Your task to perform on an android device: turn on javascript in the chrome app Image 0: 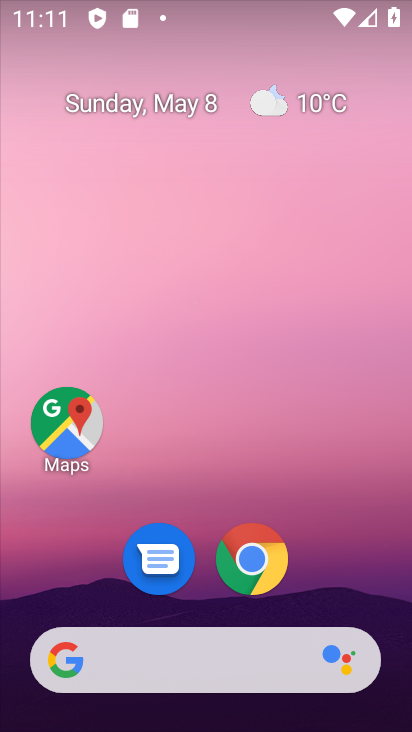
Step 0: click (250, 583)
Your task to perform on an android device: turn on javascript in the chrome app Image 1: 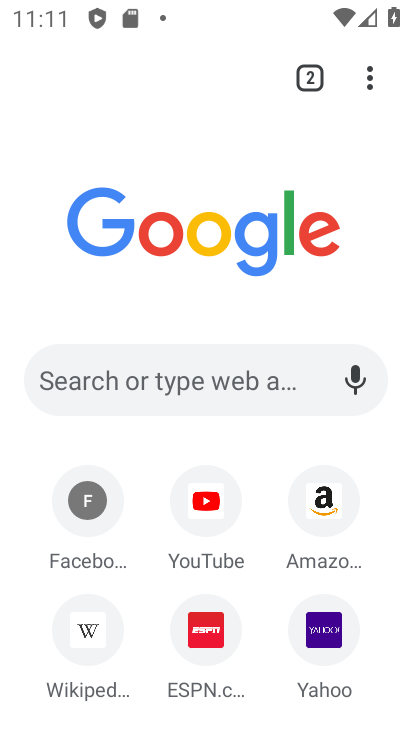
Step 1: click (367, 78)
Your task to perform on an android device: turn on javascript in the chrome app Image 2: 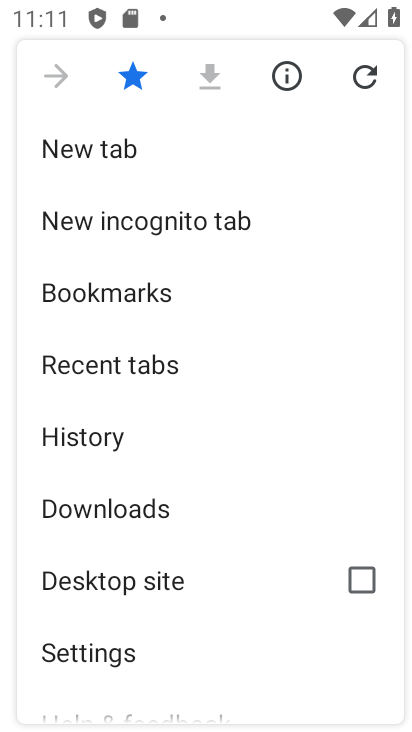
Step 2: click (111, 652)
Your task to perform on an android device: turn on javascript in the chrome app Image 3: 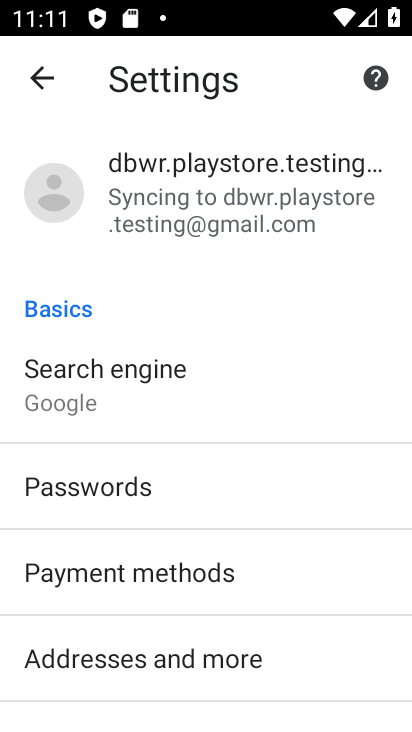
Step 3: drag from (180, 532) to (257, 280)
Your task to perform on an android device: turn on javascript in the chrome app Image 4: 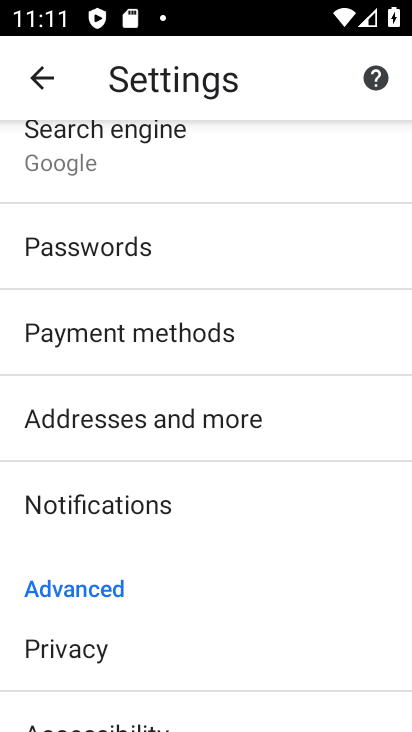
Step 4: drag from (142, 575) to (182, 116)
Your task to perform on an android device: turn on javascript in the chrome app Image 5: 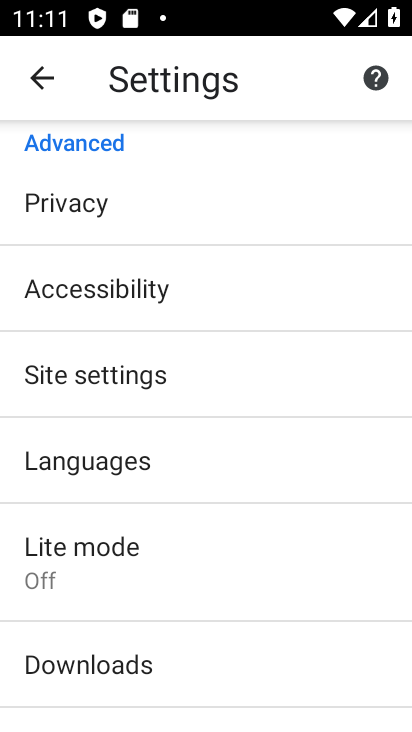
Step 5: click (130, 382)
Your task to perform on an android device: turn on javascript in the chrome app Image 6: 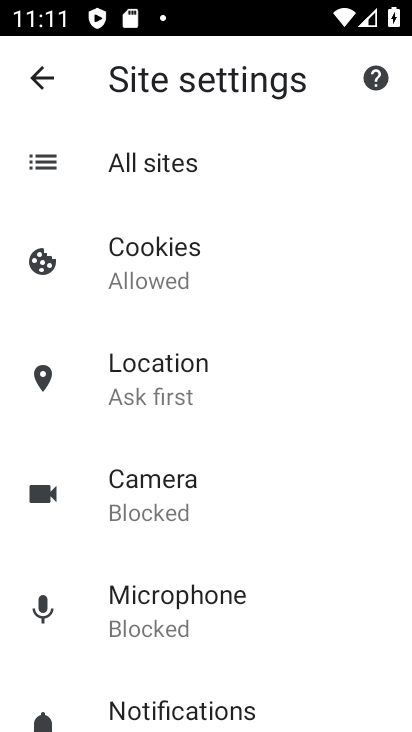
Step 6: drag from (168, 570) to (200, 343)
Your task to perform on an android device: turn on javascript in the chrome app Image 7: 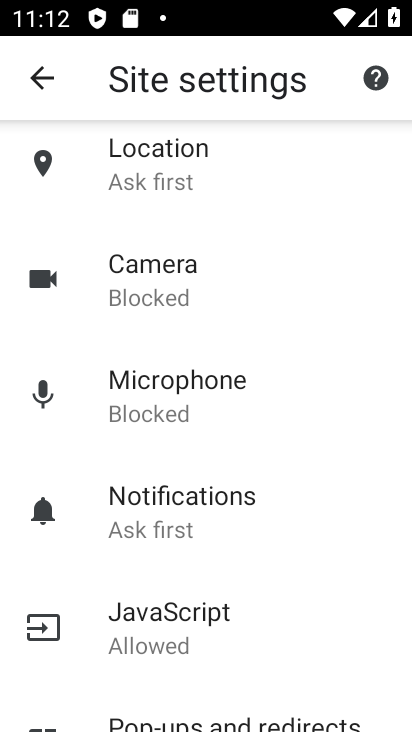
Step 7: click (158, 608)
Your task to perform on an android device: turn on javascript in the chrome app Image 8: 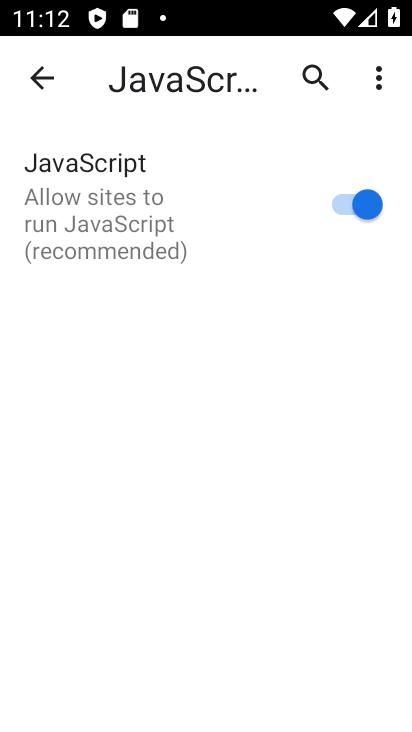
Step 8: task complete